Your task to perform on an android device: toggle wifi Image 0: 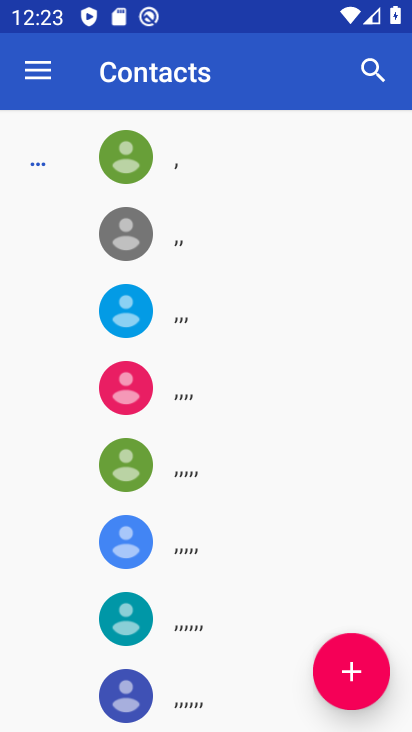
Step 0: task complete